Your task to perform on an android device: move an email to a new category in the gmail app Image 0: 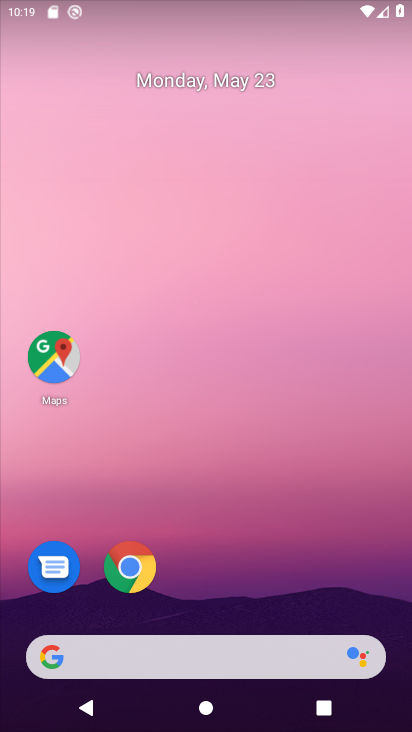
Step 0: drag from (190, 622) to (291, 183)
Your task to perform on an android device: move an email to a new category in the gmail app Image 1: 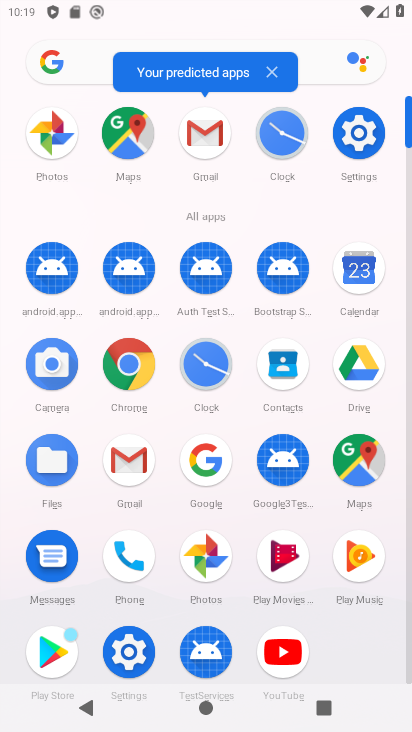
Step 1: click (130, 472)
Your task to perform on an android device: move an email to a new category in the gmail app Image 2: 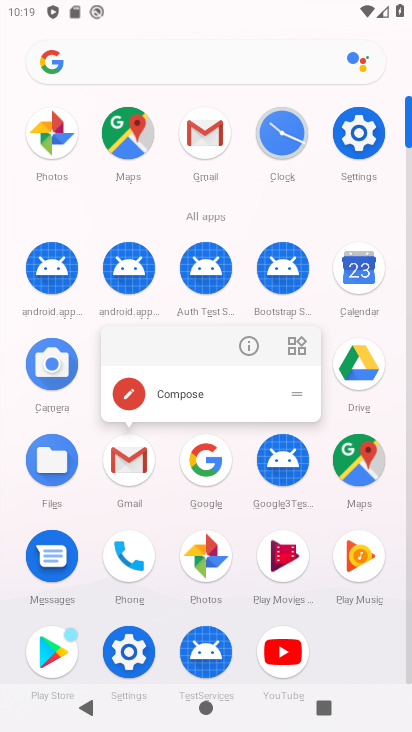
Step 2: click (134, 474)
Your task to perform on an android device: move an email to a new category in the gmail app Image 3: 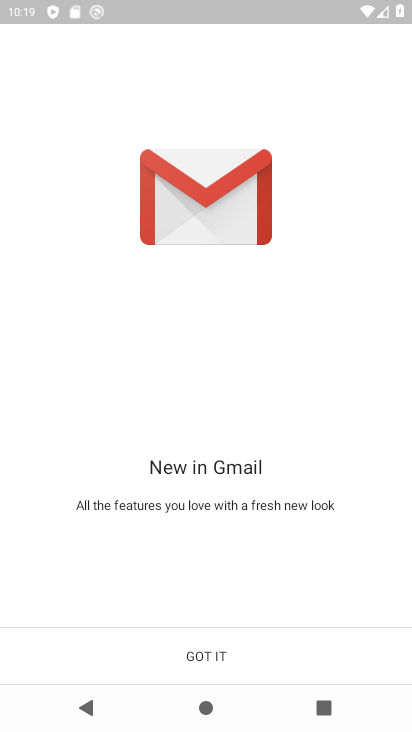
Step 3: click (187, 660)
Your task to perform on an android device: move an email to a new category in the gmail app Image 4: 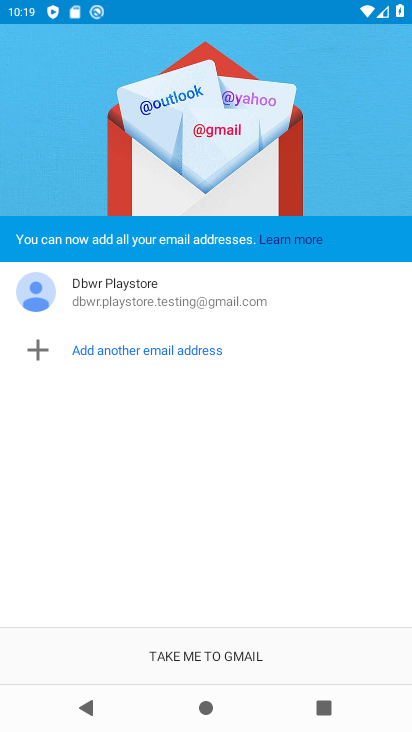
Step 4: click (228, 654)
Your task to perform on an android device: move an email to a new category in the gmail app Image 5: 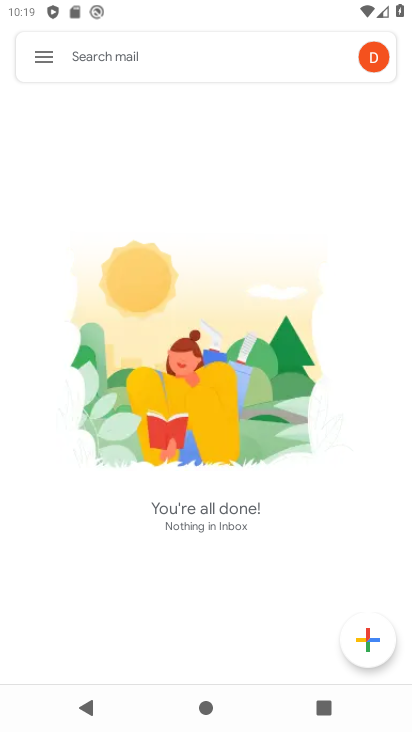
Step 5: click (64, 65)
Your task to perform on an android device: move an email to a new category in the gmail app Image 6: 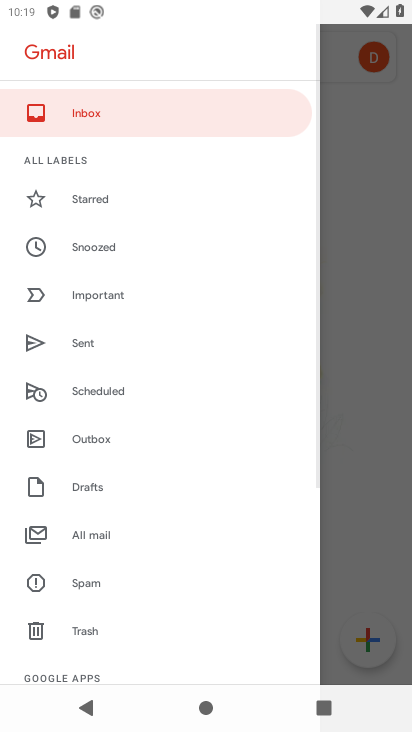
Step 6: drag from (103, 659) to (144, 463)
Your task to perform on an android device: move an email to a new category in the gmail app Image 7: 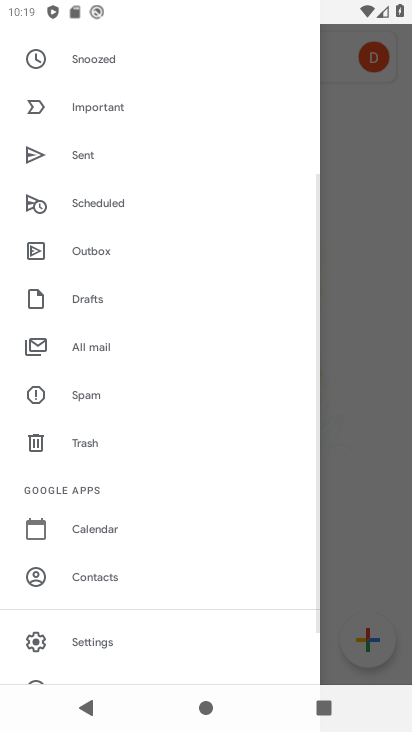
Step 7: click (150, 354)
Your task to perform on an android device: move an email to a new category in the gmail app Image 8: 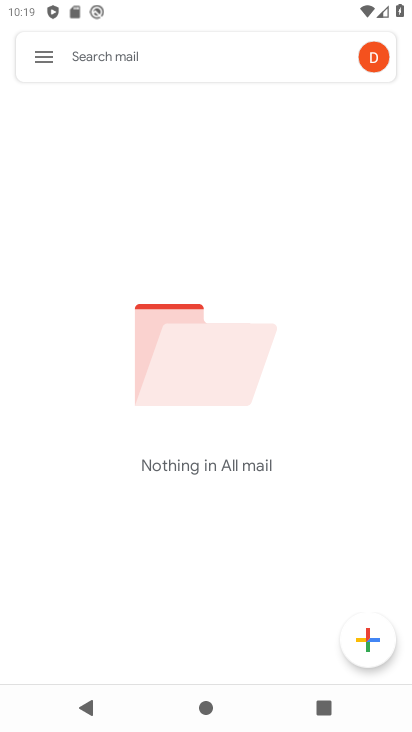
Step 8: task complete